Your task to perform on an android device: Open eBay Image 0: 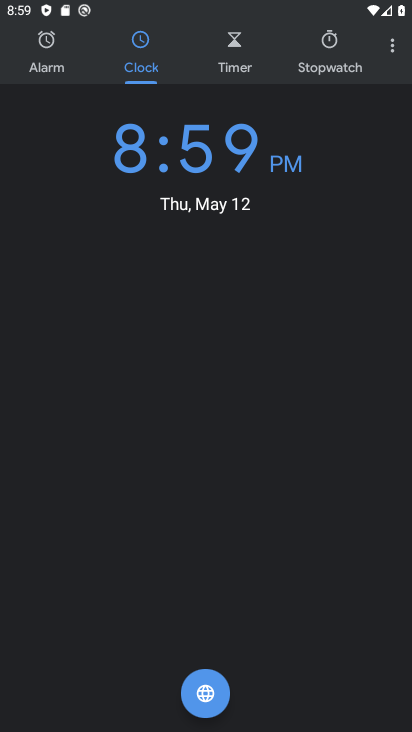
Step 0: press home button
Your task to perform on an android device: Open eBay Image 1: 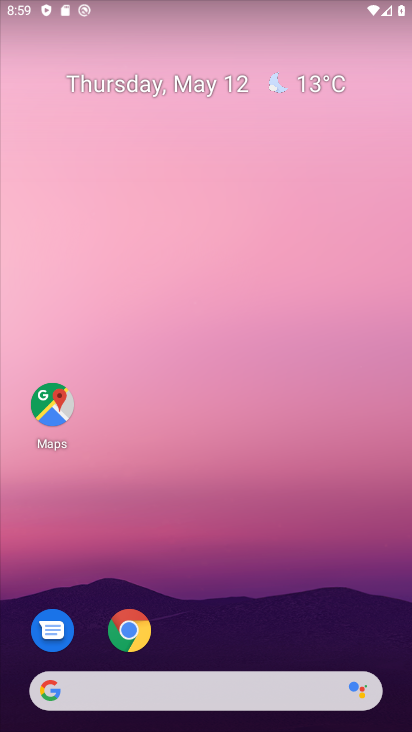
Step 1: click (128, 632)
Your task to perform on an android device: Open eBay Image 2: 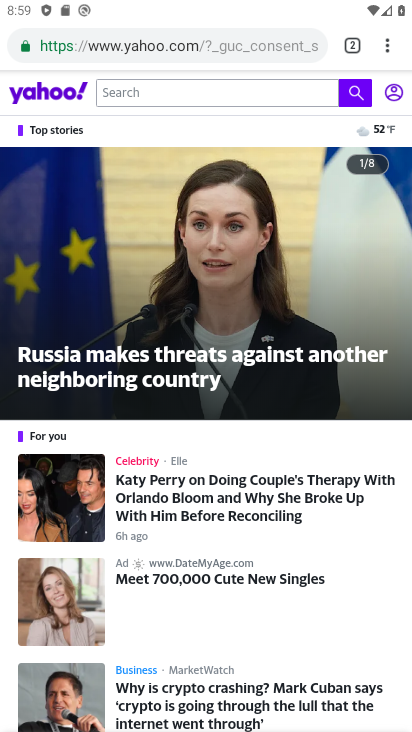
Step 2: click (221, 40)
Your task to perform on an android device: Open eBay Image 3: 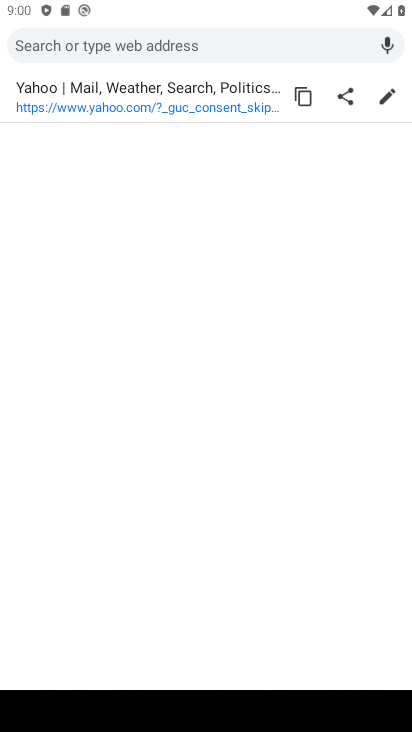
Step 3: type "ebay"
Your task to perform on an android device: Open eBay Image 4: 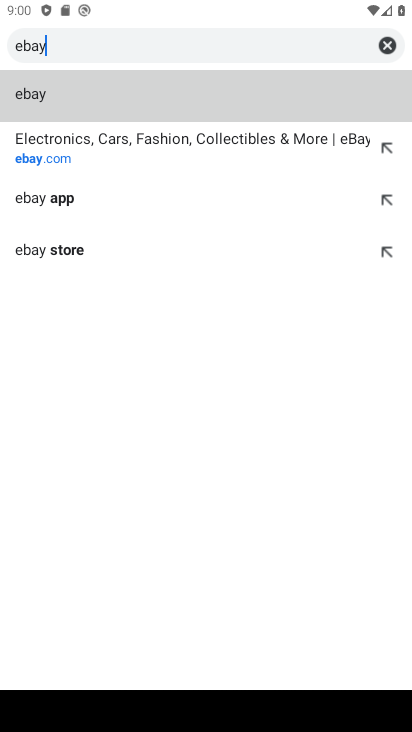
Step 4: click (176, 141)
Your task to perform on an android device: Open eBay Image 5: 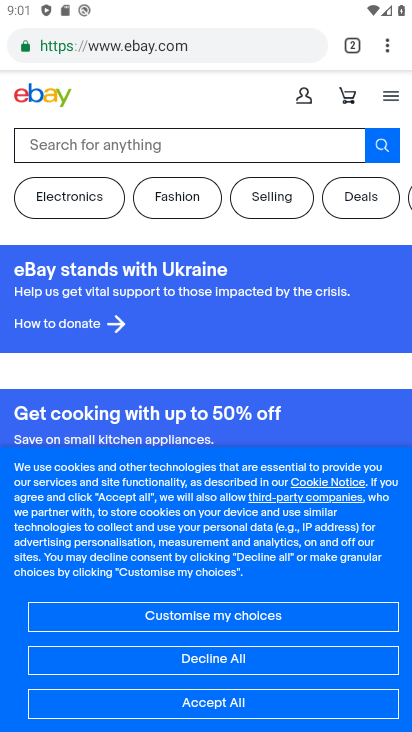
Step 5: task complete